Your task to perform on an android device: Show me recent news Image 0: 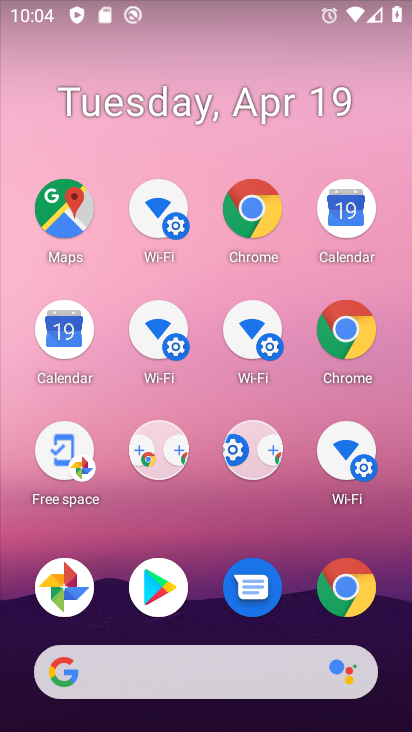
Step 0: drag from (1, 269) to (373, 435)
Your task to perform on an android device: Show me recent news Image 1: 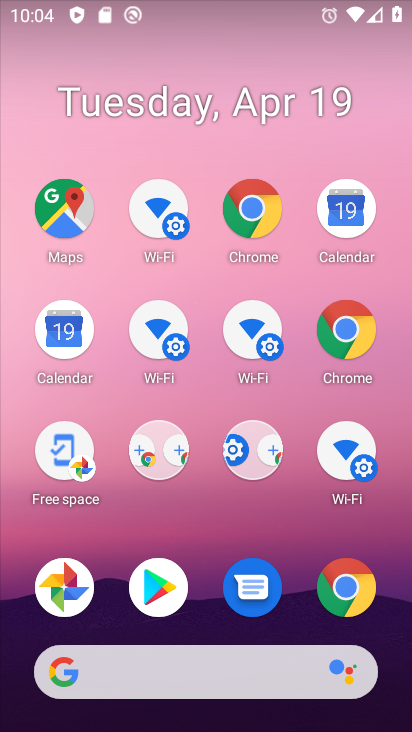
Step 1: drag from (30, 272) to (372, 398)
Your task to perform on an android device: Show me recent news Image 2: 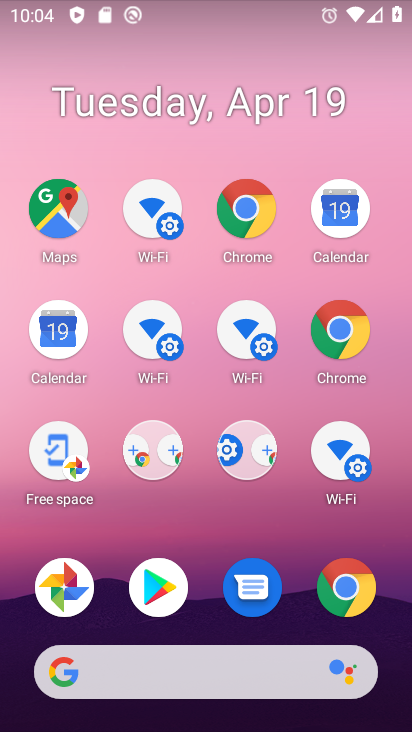
Step 2: drag from (40, 288) to (385, 340)
Your task to perform on an android device: Show me recent news Image 3: 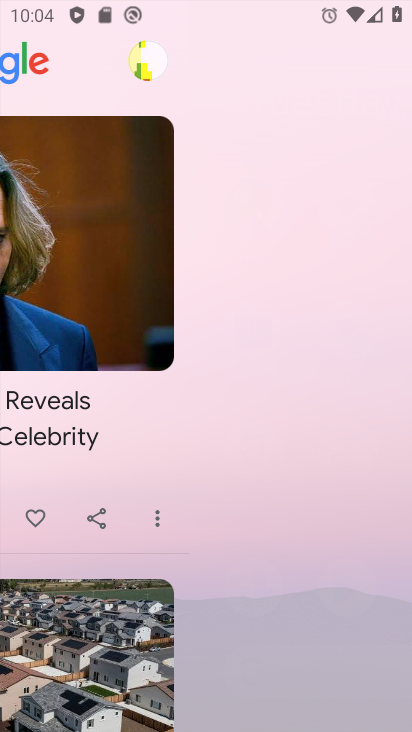
Step 3: drag from (50, 275) to (380, 362)
Your task to perform on an android device: Show me recent news Image 4: 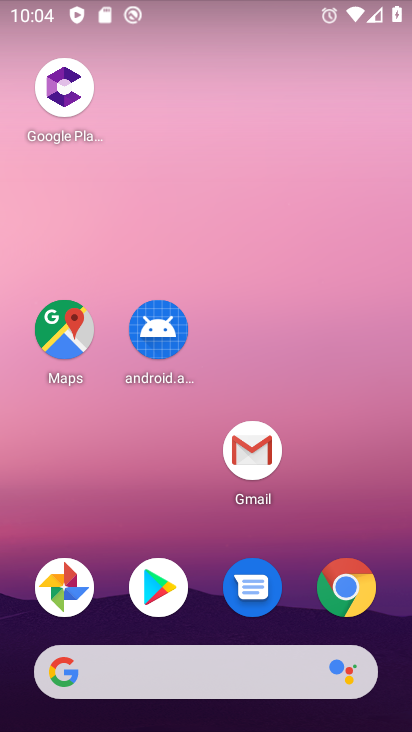
Step 4: drag from (7, 292) to (298, 422)
Your task to perform on an android device: Show me recent news Image 5: 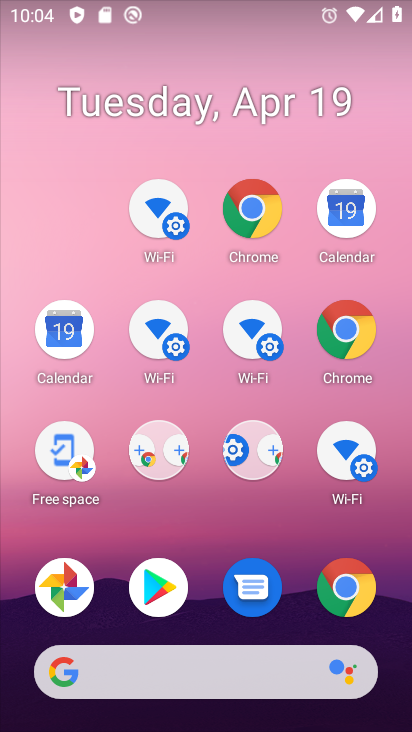
Step 5: drag from (40, 289) to (407, 355)
Your task to perform on an android device: Show me recent news Image 6: 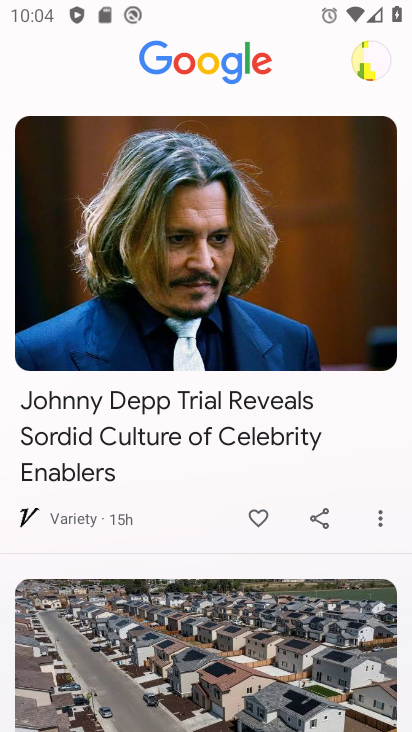
Step 6: click (274, 602)
Your task to perform on an android device: Show me recent news Image 7: 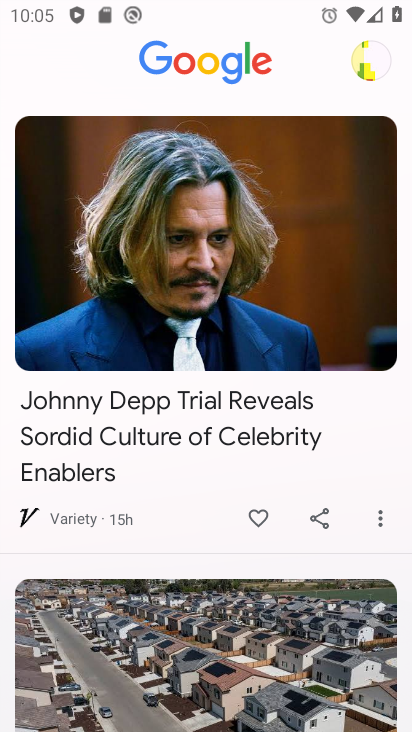
Step 7: click (194, 567)
Your task to perform on an android device: Show me recent news Image 8: 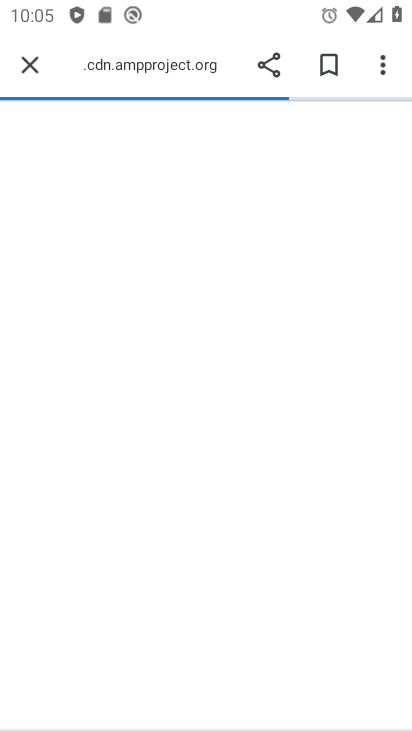
Step 8: task complete